Your task to perform on an android device: toggle show notifications on the lock screen Image 0: 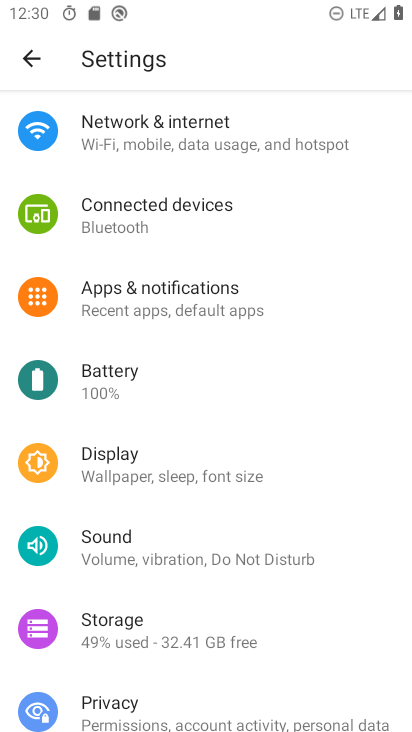
Step 0: click (224, 303)
Your task to perform on an android device: toggle show notifications on the lock screen Image 1: 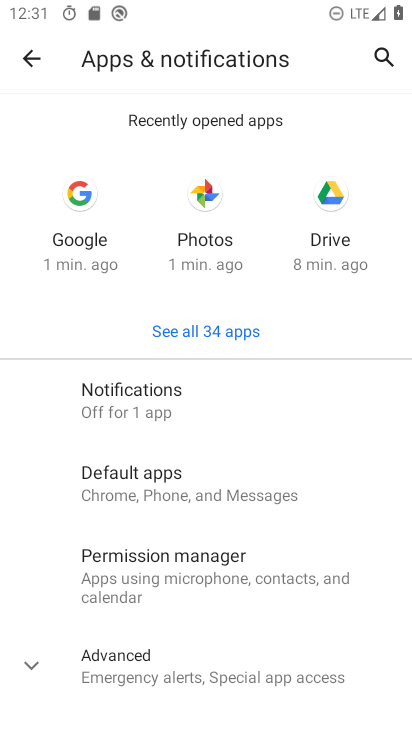
Step 1: click (161, 410)
Your task to perform on an android device: toggle show notifications on the lock screen Image 2: 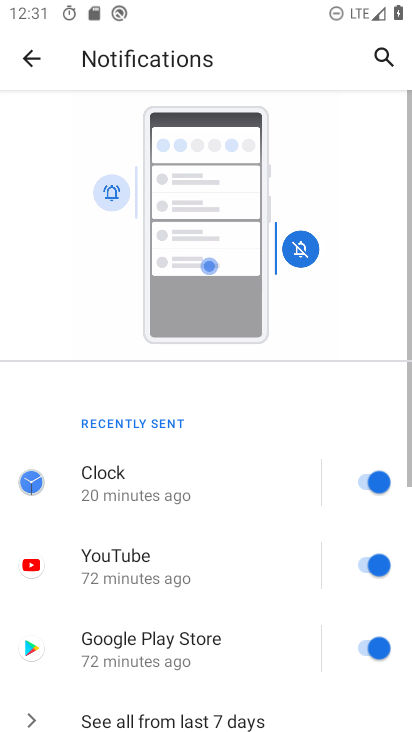
Step 2: drag from (266, 593) to (267, 315)
Your task to perform on an android device: toggle show notifications on the lock screen Image 3: 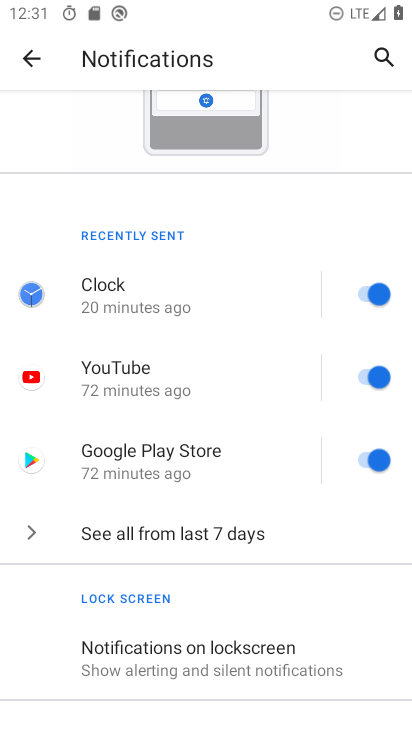
Step 3: click (270, 644)
Your task to perform on an android device: toggle show notifications on the lock screen Image 4: 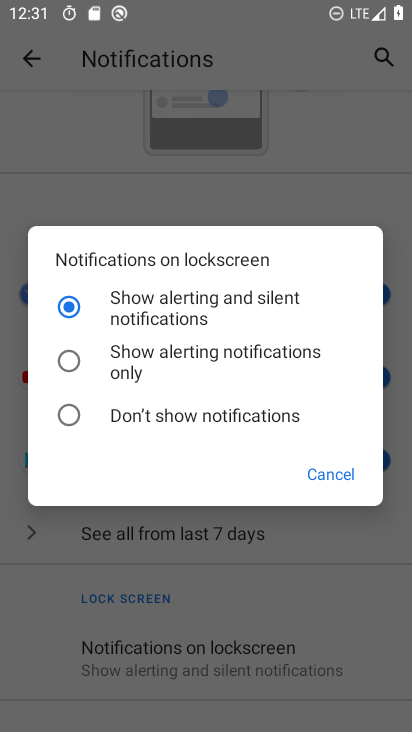
Step 4: click (179, 401)
Your task to perform on an android device: toggle show notifications on the lock screen Image 5: 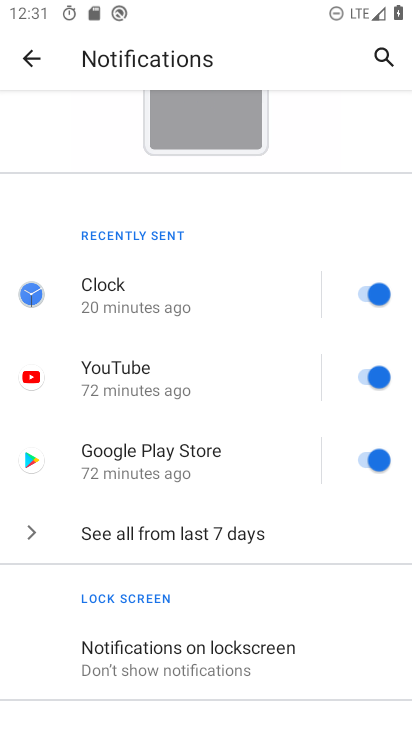
Step 5: task complete